Your task to perform on an android device: make emails show in primary in the gmail app Image 0: 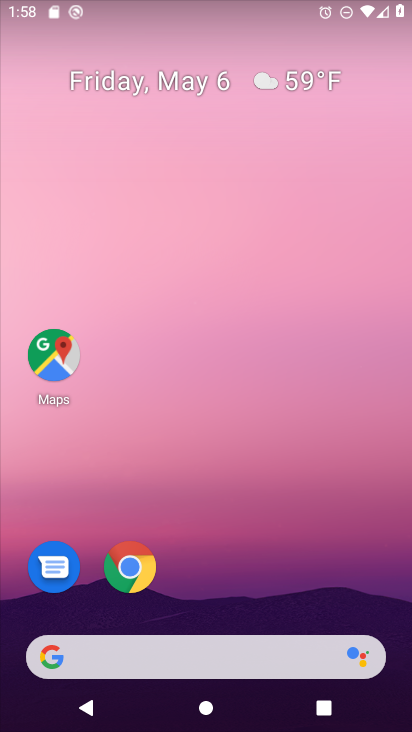
Step 0: drag from (281, 601) to (398, 368)
Your task to perform on an android device: make emails show in primary in the gmail app Image 1: 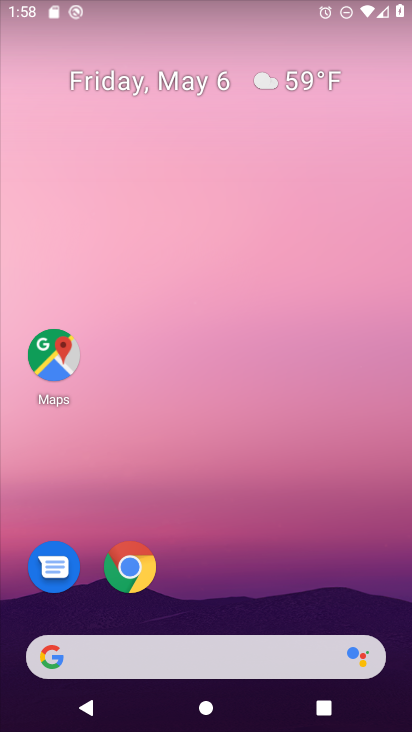
Step 1: drag from (331, 612) to (281, 43)
Your task to perform on an android device: make emails show in primary in the gmail app Image 2: 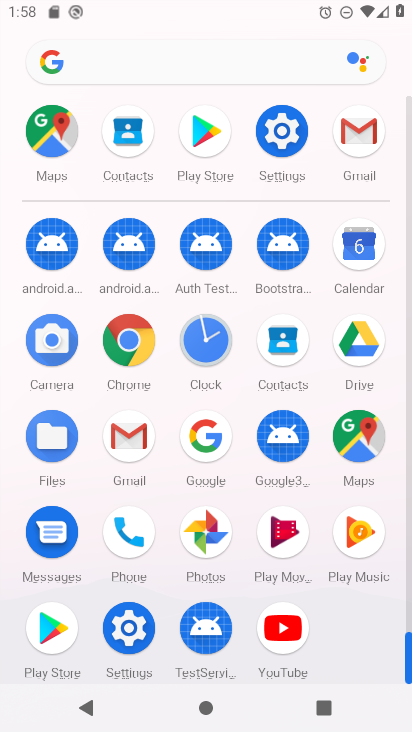
Step 2: click (116, 464)
Your task to perform on an android device: make emails show in primary in the gmail app Image 3: 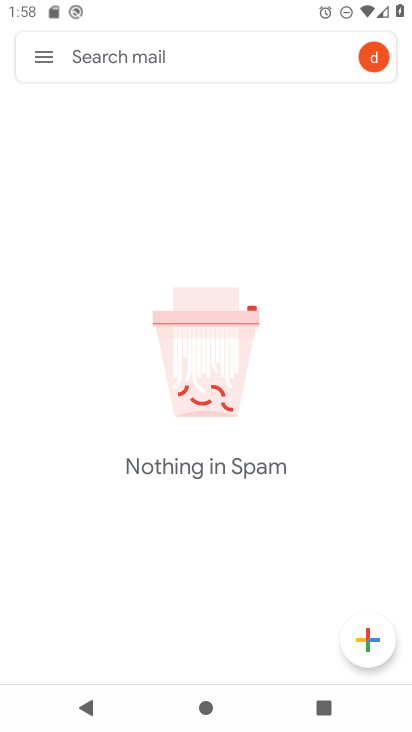
Step 3: click (28, 61)
Your task to perform on an android device: make emails show in primary in the gmail app Image 4: 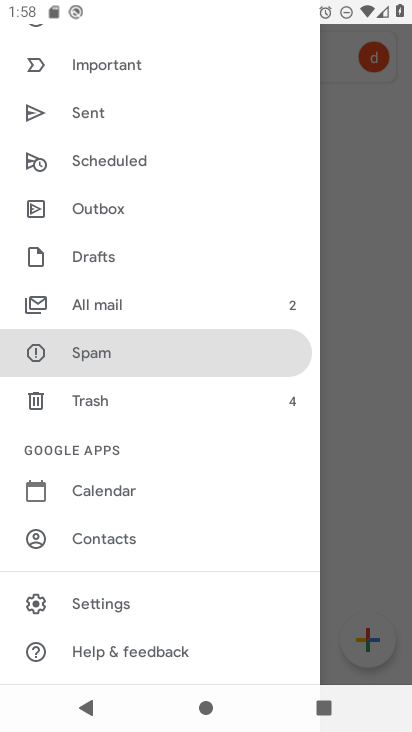
Step 4: drag from (134, 537) to (148, 418)
Your task to perform on an android device: make emails show in primary in the gmail app Image 5: 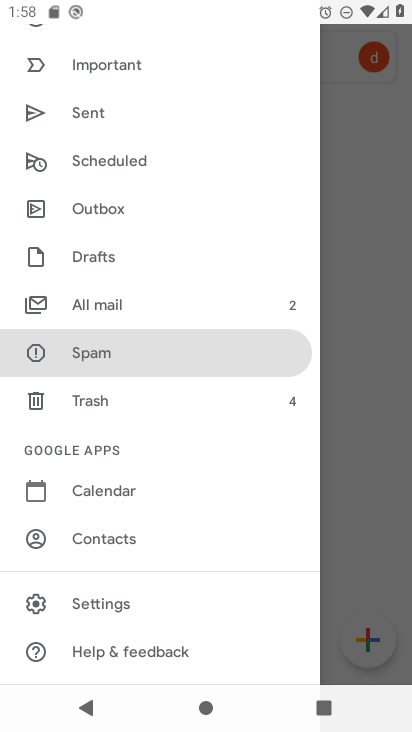
Step 5: click (124, 594)
Your task to perform on an android device: make emails show in primary in the gmail app Image 6: 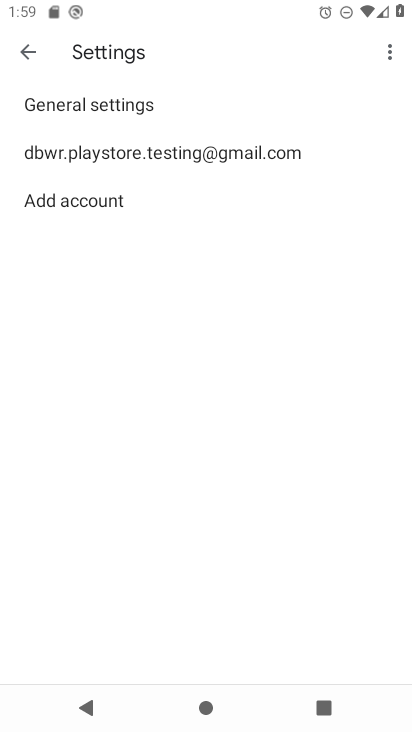
Step 6: click (155, 152)
Your task to perform on an android device: make emails show in primary in the gmail app Image 7: 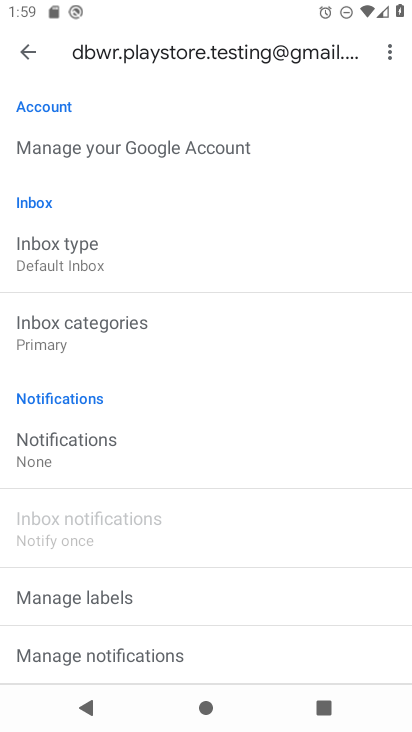
Step 7: drag from (146, 518) to (138, 425)
Your task to perform on an android device: make emails show in primary in the gmail app Image 8: 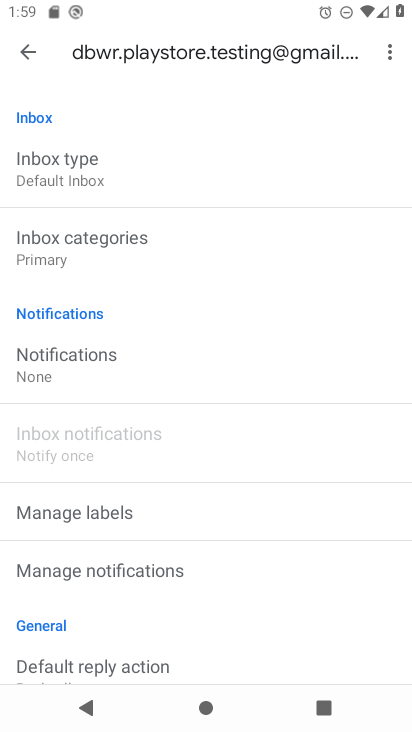
Step 8: click (88, 174)
Your task to perform on an android device: make emails show in primary in the gmail app Image 9: 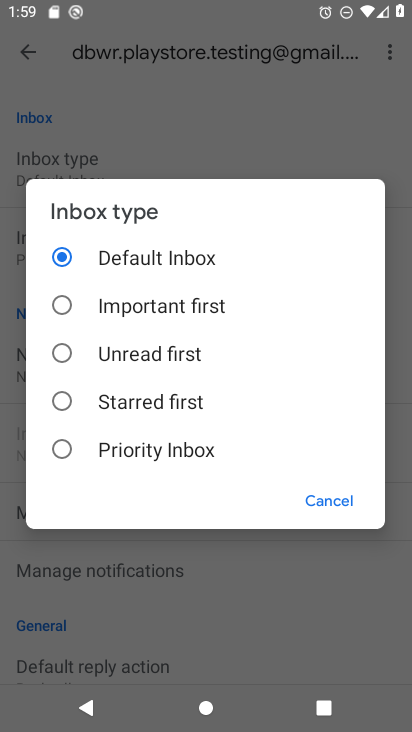
Step 9: click (130, 166)
Your task to perform on an android device: make emails show in primary in the gmail app Image 10: 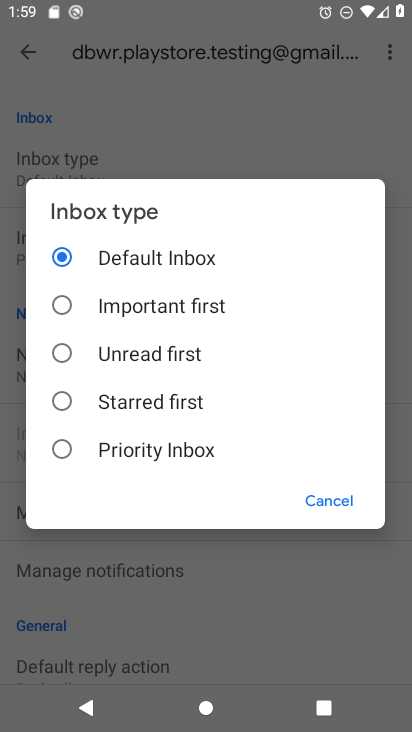
Step 10: click (95, 232)
Your task to perform on an android device: make emails show in primary in the gmail app Image 11: 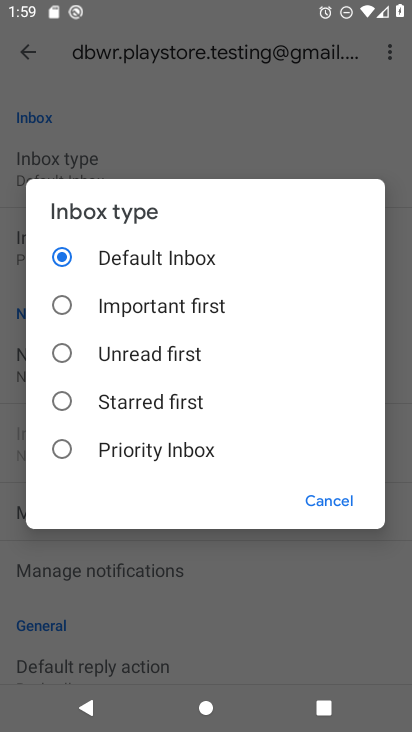
Step 11: click (147, 276)
Your task to perform on an android device: make emails show in primary in the gmail app Image 12: 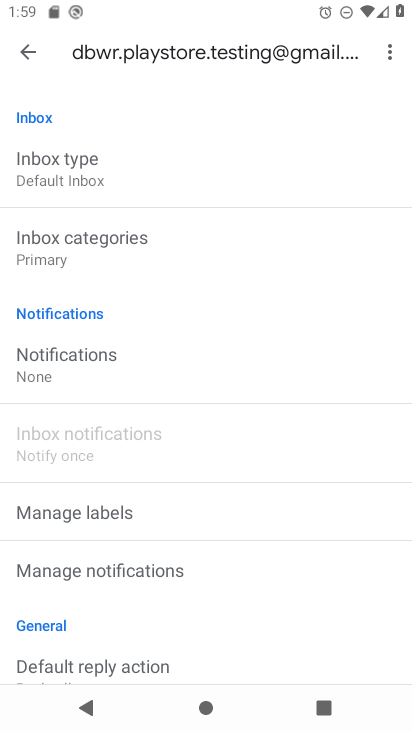
Step 12: click (130, 235)
Your task to perform on an android device: make emails show in primary in the gmail app Image 13: 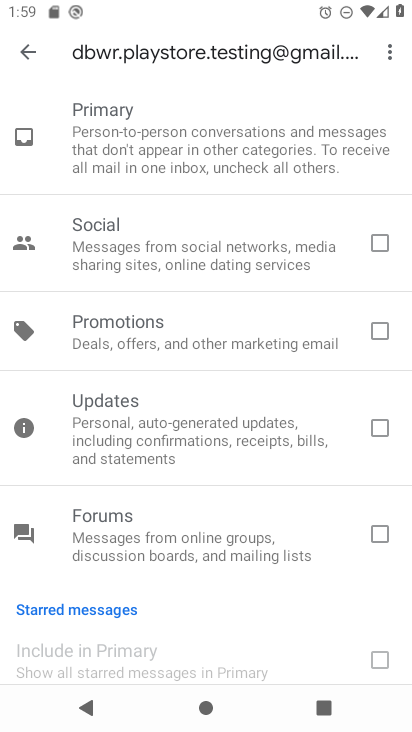
Step 13: task complete